Your task to perform on an android device: Open Amazon Image 0: 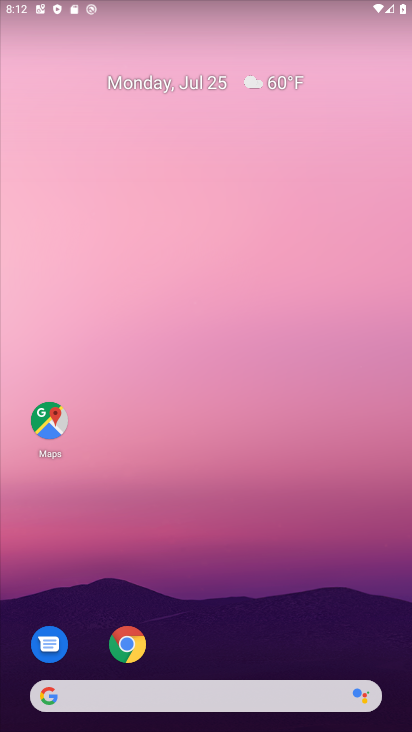
Step 0: click (131, 636)
Your task to perform on an android device: Open Amazon Image 1: 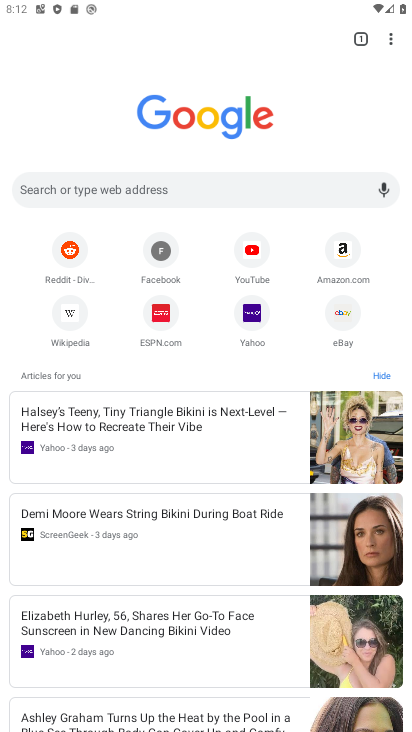
Step 1: click (350, 251)
Your task to perform on an android device: Open Amazon Image 2: 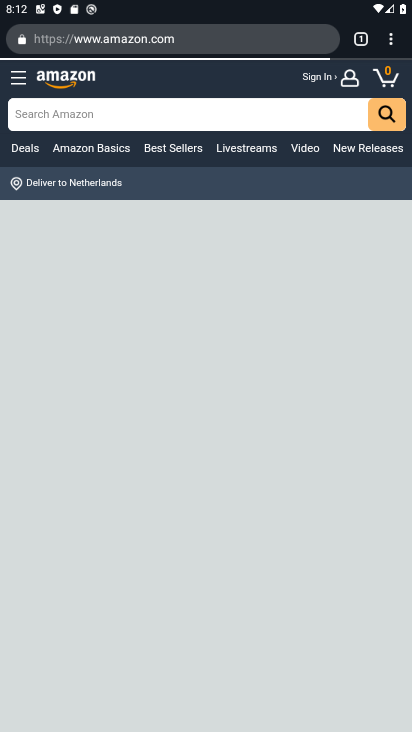
Step 2: task complete